Your task to perform on an android device: Search for Italian restaurants on Maps Image 0: 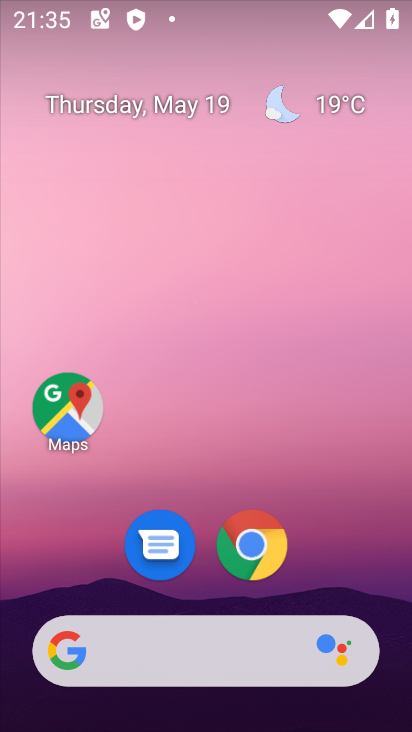
Step 0: click (92, 420)
Your task to perform on an android device: Search for Italian restaurants on Maps Image 1: 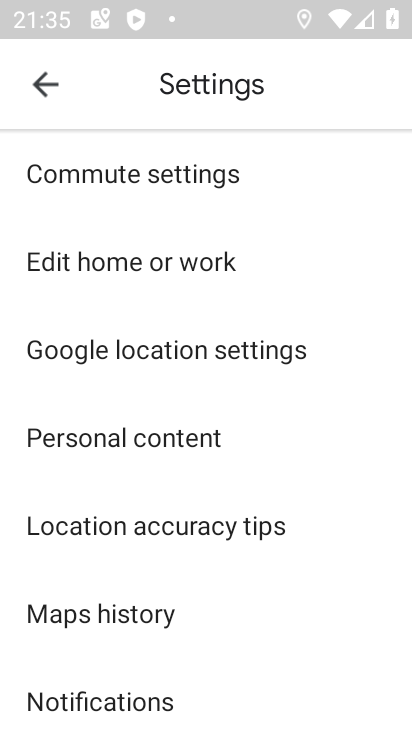
Step 1: click (54, 82)
Your task to perform on an android device: Search for Italian restaurants on Maps Image 2: 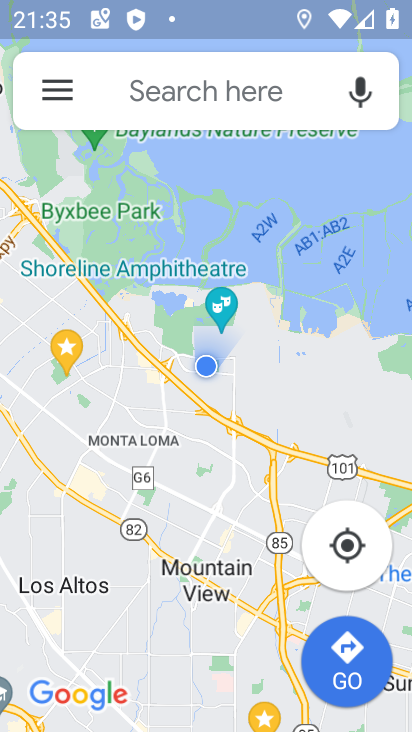
Step 2: click (174, 104)
Your task to perform on an android device: Search for Italian restaurants on Maps Image 3: 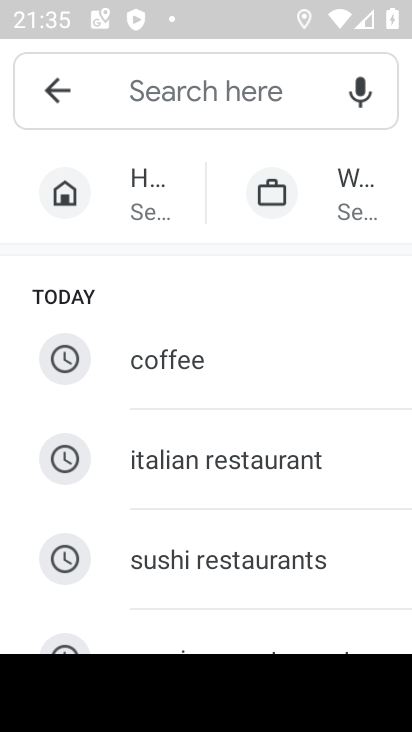
Step 3: click (274, 467)
Your task to perform on an android device: Search for Italian restaurants on Maps Image 4: 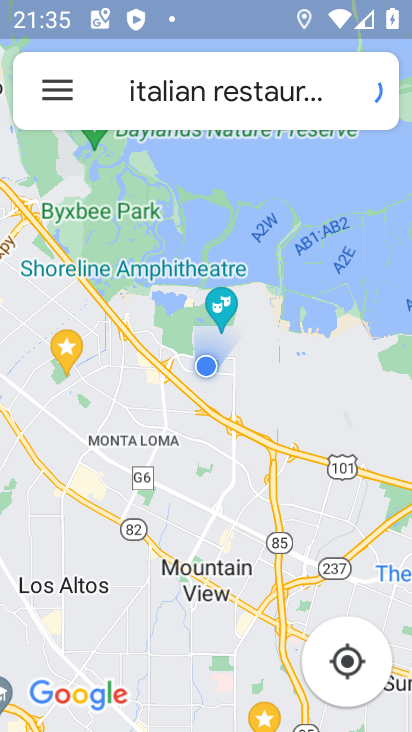
Step 4: task complete